Your task to perform on an android device: Open wifi settings Image 0: 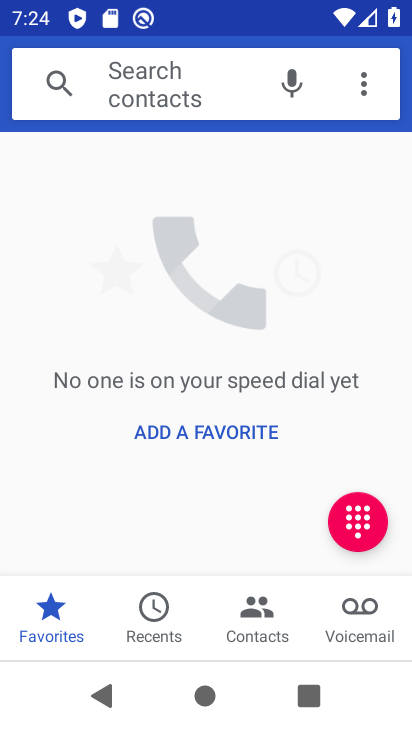
Step 0: press home button
Your task to perform on an android device: Open wifi settings Image 1: 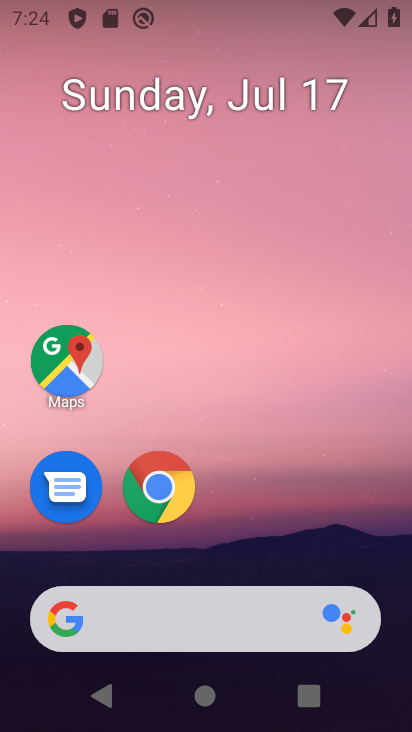
Step 1: drag from (362, 536) to (385, 96)
Your task to perform on an android device: Open wifi settings Image 2: 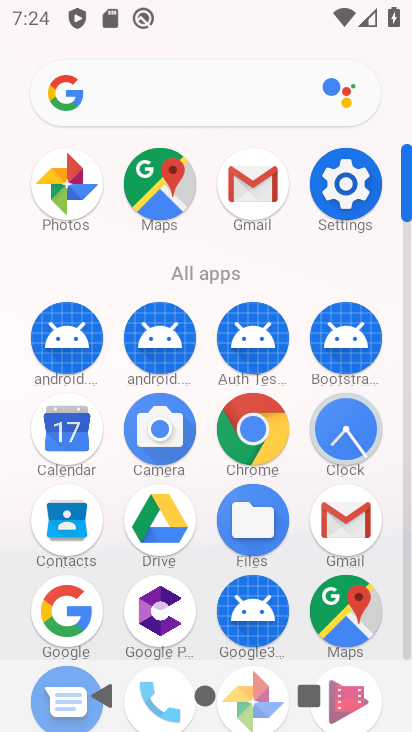
Step 2: click (353, 199)
Your task to perform on an android device: Open wifi settings Image 3: 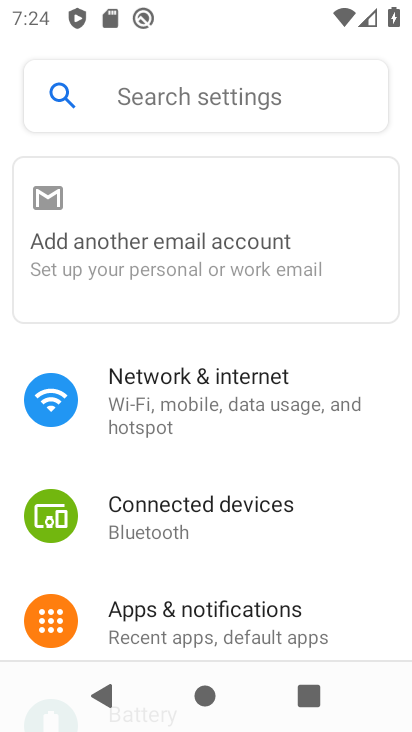
Step 3: drag from (362, 568) to (381, 368)
Your task to perform on an android device: Open wifi settings Image 4: 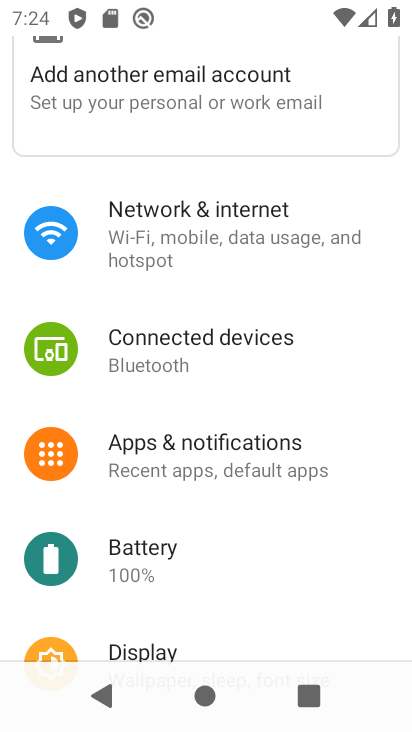
Step 4: drag from (369, 562) to (375, 412)
Your task to perform on an android device: Open wifi settings Image 5: 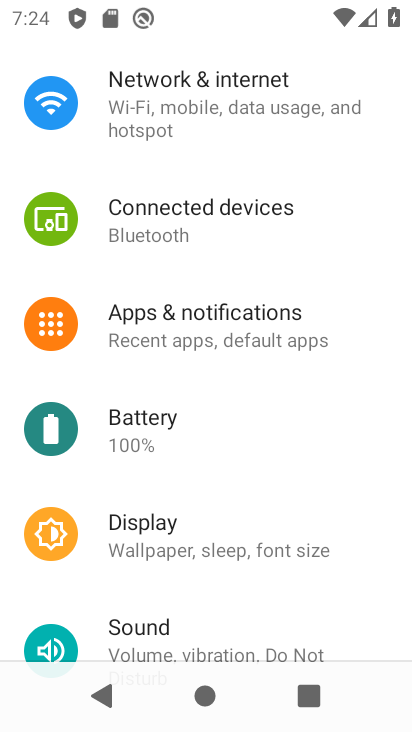
Step 5: drag from (351, 584) to (358, 434)
Your task to perform on an android device: Open wifi settings Image 6: 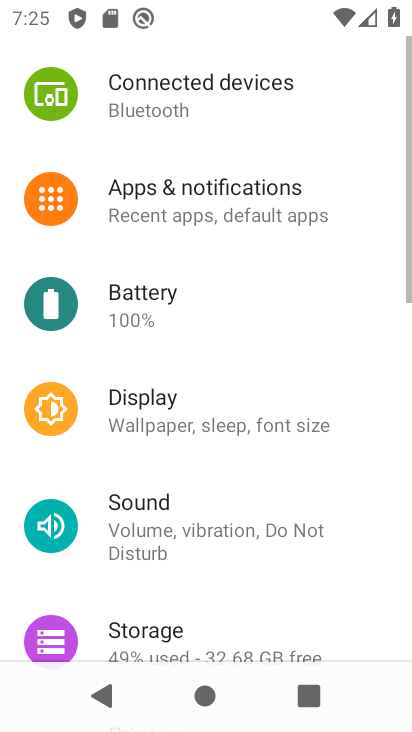
Step 6: drag from (374, 608) to (368, 494)
Your task to perform on an android device: Open wifi settings Image 7: 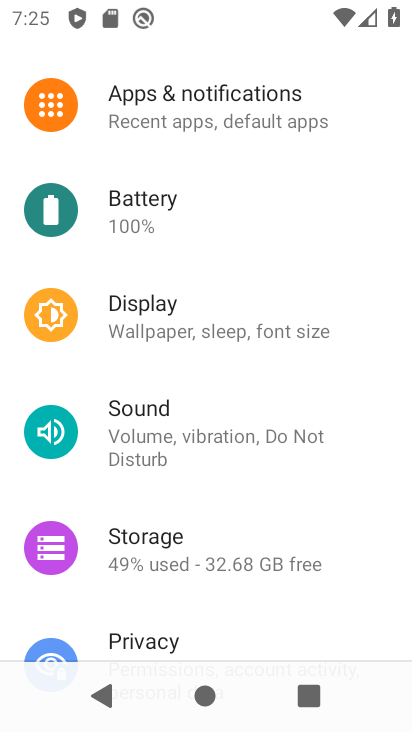
Step 7: drag from (367, 601) to (375, 485)
Your task to perform on an android device: Open wifi settings Image 8: 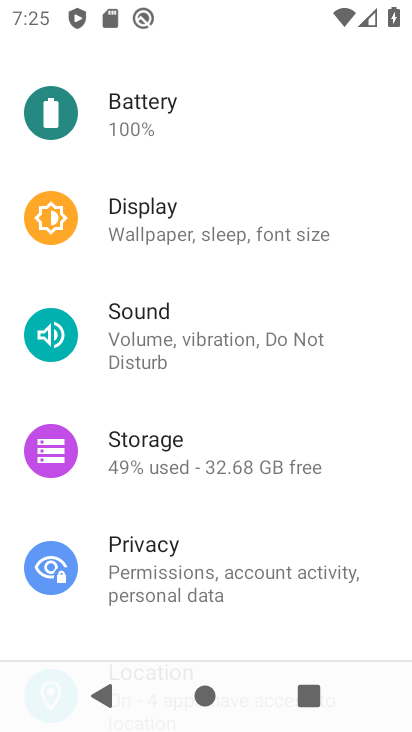
Step 8: drag from (365, 616) to (366, 495)
Your task to perform on an android device: Open wifi settings Image 9: 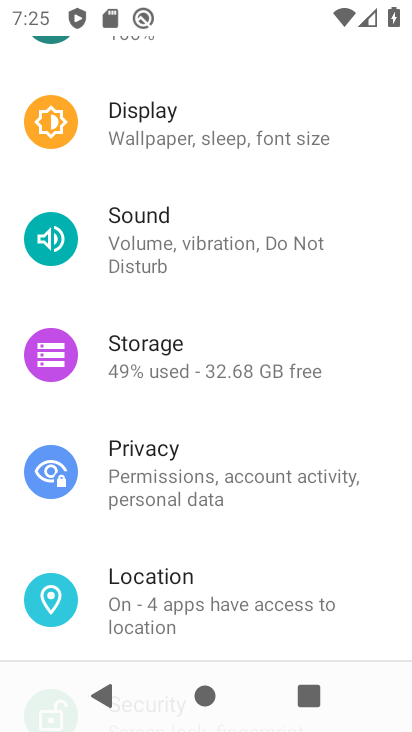
Step 9: drag from (353, 593) to (366, 475)
Your task to perform on an android device: Open wifi settings Image 10: 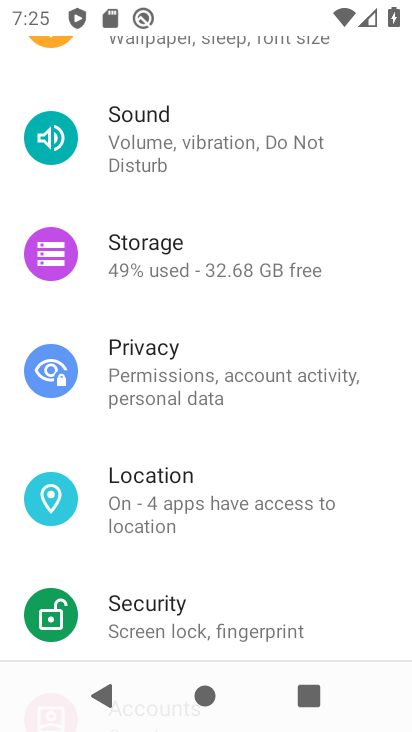
Step 10: drag from (364, 620) to (359, 512)
Your task to perform on an android device: Open wifi settings Image 11: 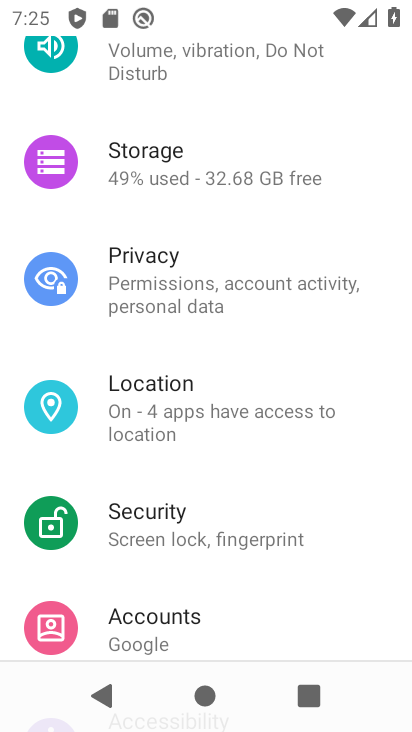
Step 11: drag from (349, 564) to (354, 449)
Your task to perform on an android device: Open wifi settings Image 12: 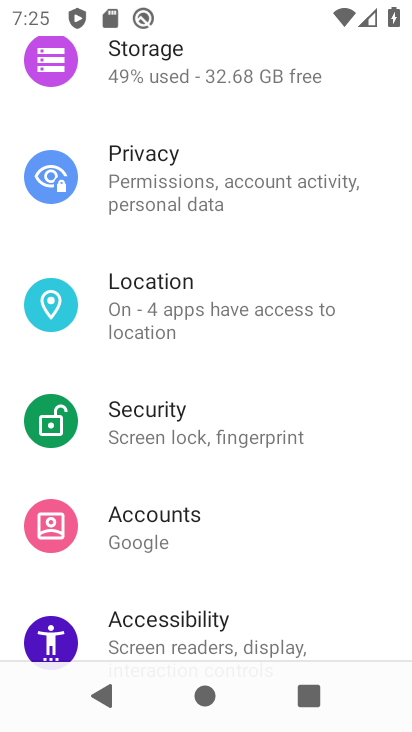
Step 12: drag from (343, 591) to (340, 453)
Your task to perform on an android device: Open wifi settings Image 13: 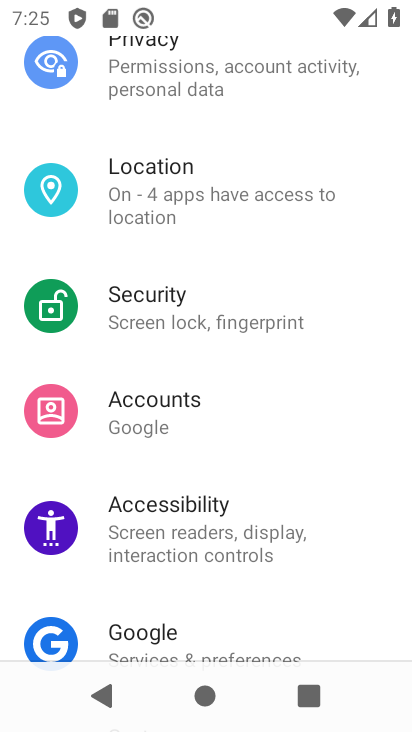
Step 13: drag from (326, 564) to (340, 397)
Your task to perform on an android device: Open wifi settings Image 14: 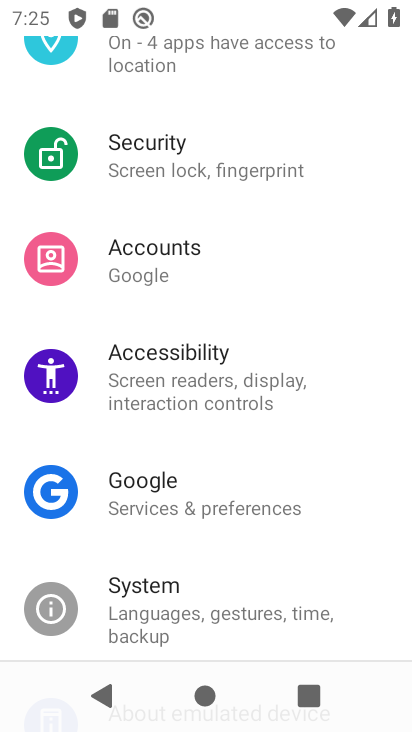
Step 14: drag from (332, 601) to (335, 421)
Your task to perform on an android device: Open wifi settings Image 15: 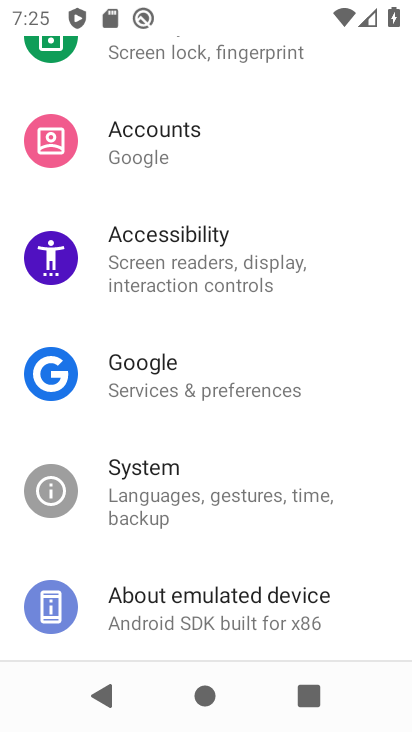
Step 15: drag from (327, 336) to (347, 465)
Your task to perform on an android device: Open wifi settings Image 16: 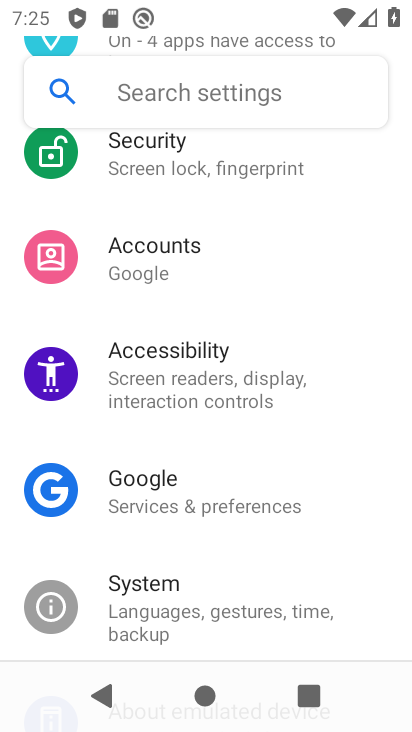
Step 16: drag from (343, 336) to (355, 455)
Your task to perform on an android device: Open wifi settings Image 17: 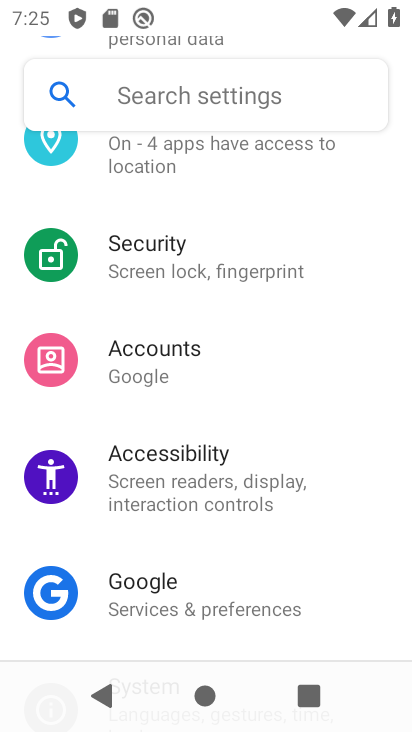
Step 17: drag from (350, 309) to (350, 402)
Your task to perform on an android device: Open wifi settings Image 18: 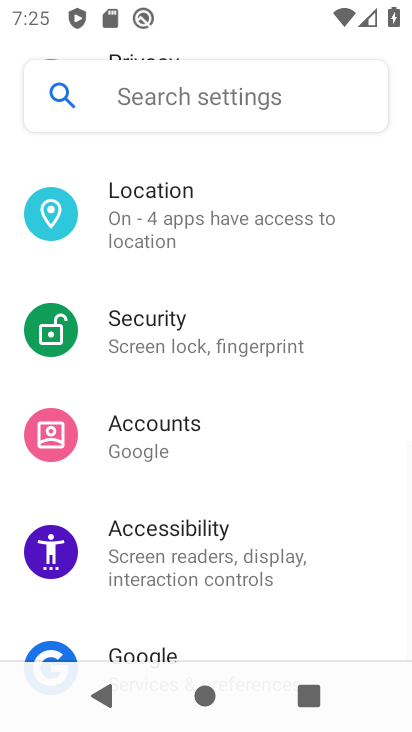
Step 18: drag from (349, 264) to (349, 382)
Your task to perform on an android device: Open wifi settings Image 19: 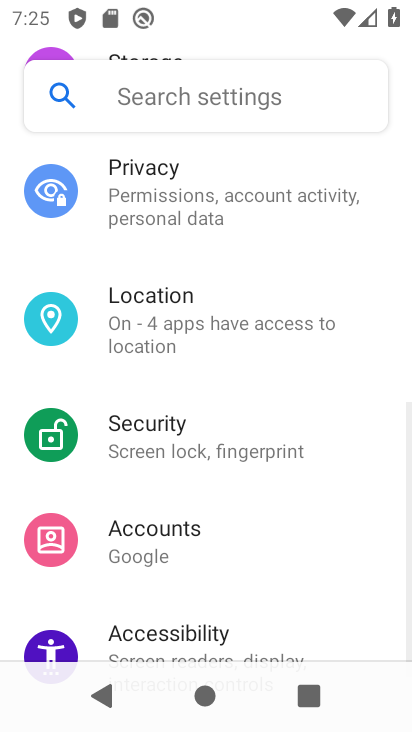
Step 19: drag from (363, 252) to (365, 382)
Your task to perform on an android device: Open wifi settings Image 20: 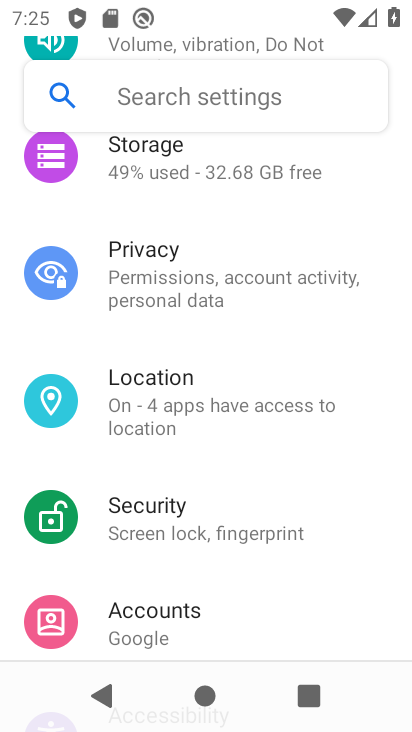
Step 20: drag from (366, 242) to (370, 369)
Your task to perform on an android device: Open wifi settings Image 21: 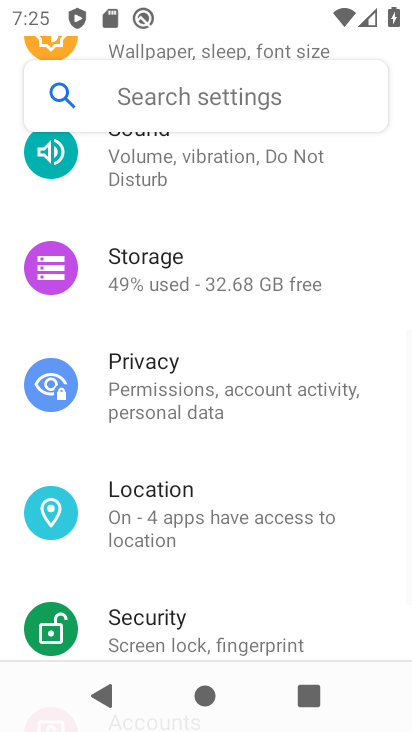
Step 21: drag from (360, 232) to (372, 380)
Your task to perform on an android device: Open wifi settings Image 22: 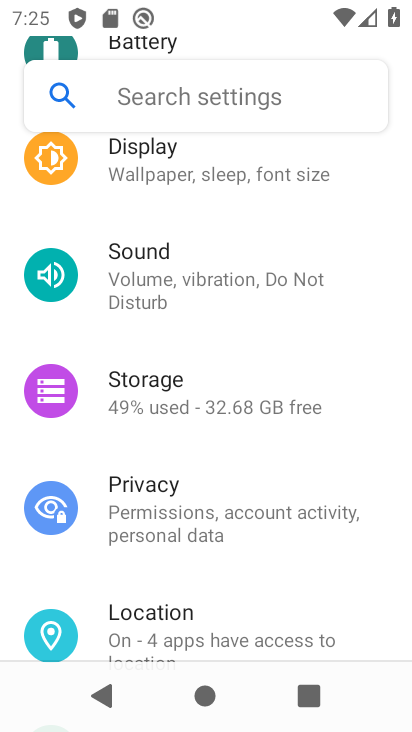
Step 22: drag from (372, 232) to (381, 363)
Your task to perform on an android device: Open wifi settings Image 23: 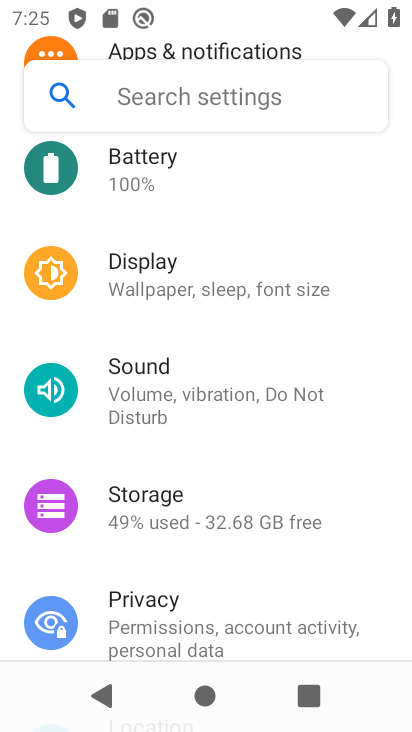
Step 23: drag from (363, 210) to (366, 446)
Your task to perform on an android device: Open wifi settings Image 24: 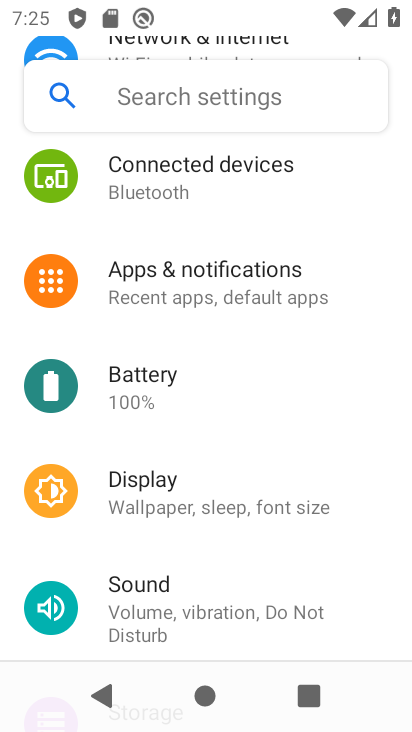
Step 24: drag from (362, 194) to (381, 412)
Your task to perform on an android device: Open wifi settings Image 25: 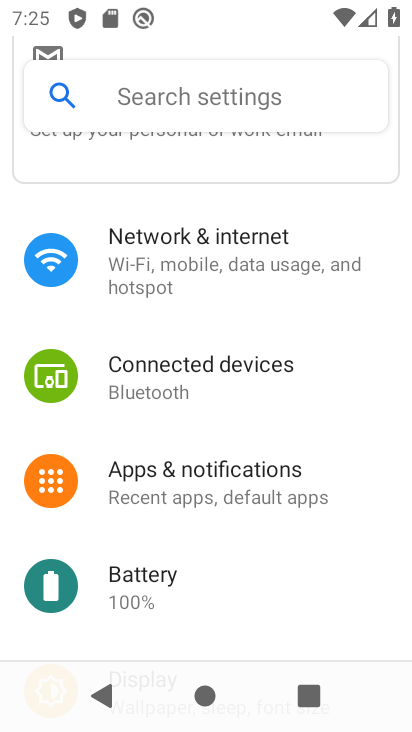
Step 25: click (260, 248)
Your task to perform on an android device: Open wifi settings Image 26: 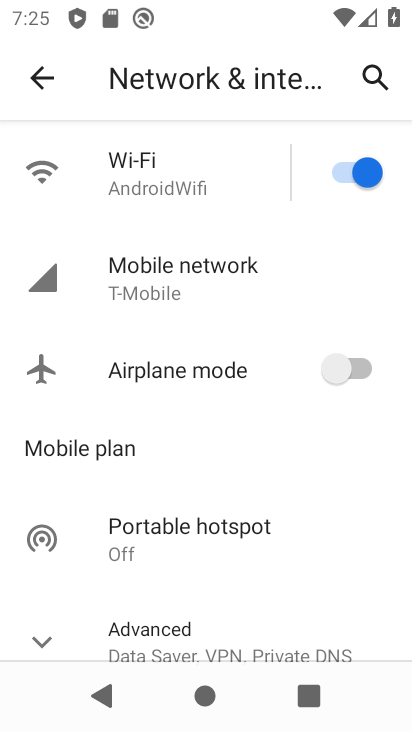
Step 26: click (220, 189)
Your task to perform on an android device: Open wifi settings Image 27: 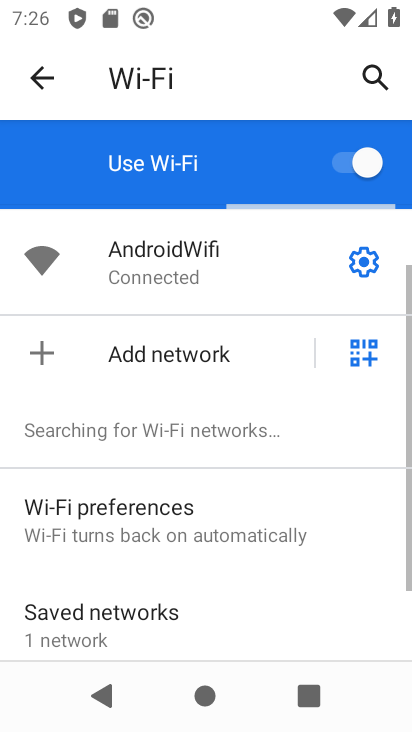
Step 27: task complete